Your task to perform on an android device: Check the weather Image 0: 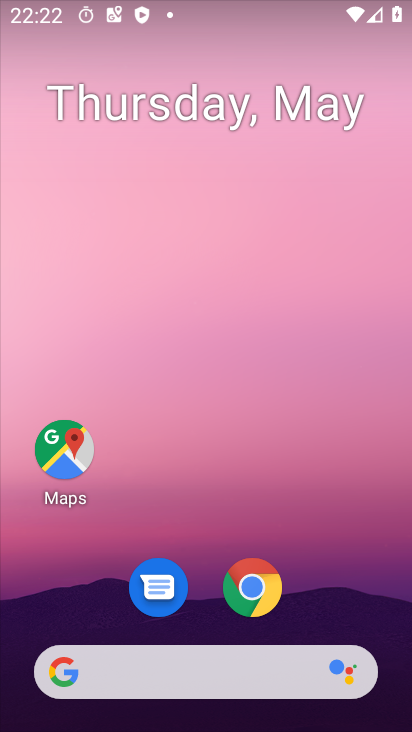
Step 0: click (118, 667)
Your task to perform on an android device: Check the weather Image 1: 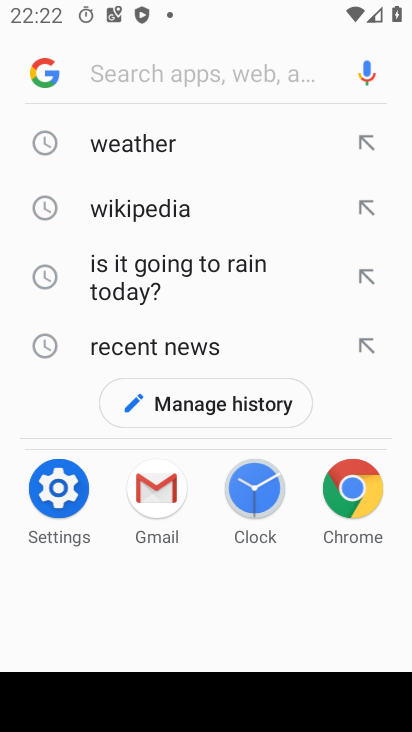
Step 1: click (120, 149)
Your task to perform on an android device: Check the weather Image 2: 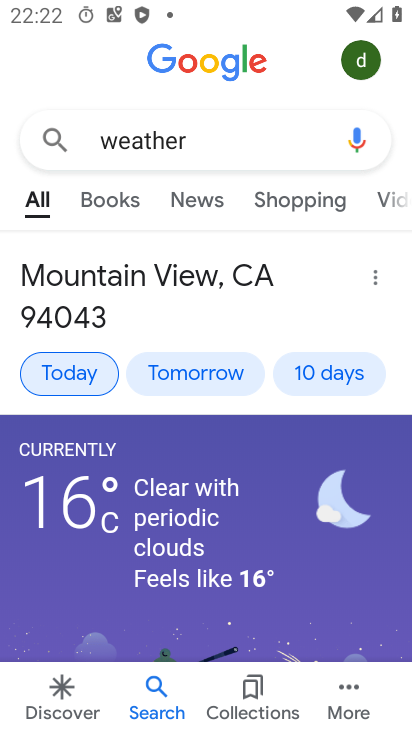
Step 2: task complete